Your task to perform on an android device: stop showing notifications on the lock screen Image 0: 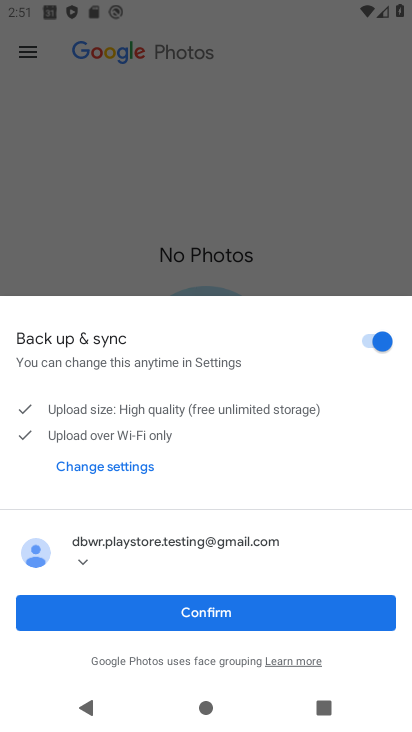
Step 0: press home button
Your task to perform on an android device: stop showing notifications on the lock screen Image 1: 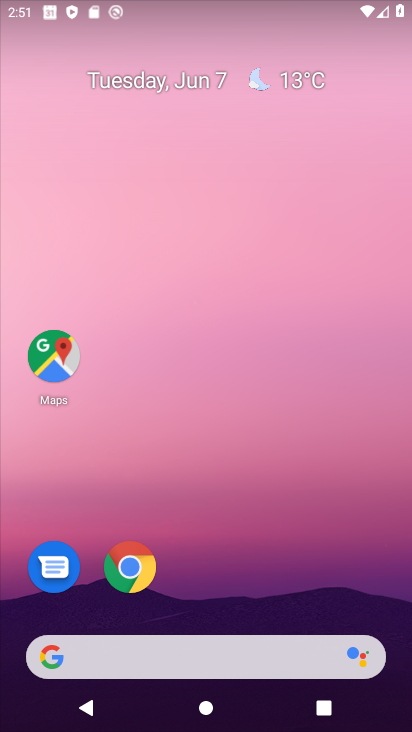
Step 1: drag from (199, 585) to (244, 4)
Your task to perform on an android device: stop showing notifications on the lock screen Image 2: 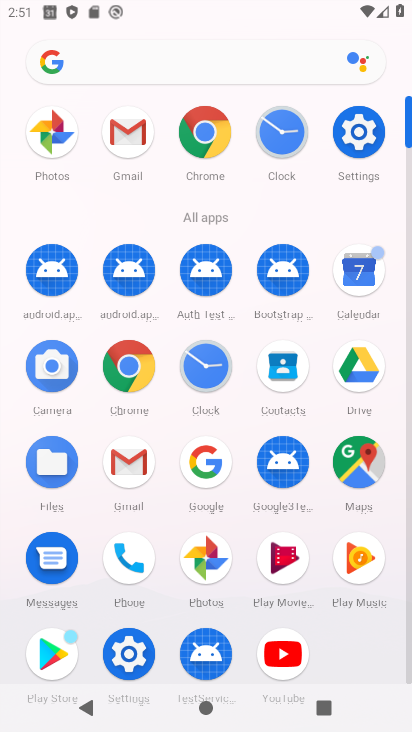
Step 2: click (361, 130)
Your task to perform on an android device: stop showing notifications on the lock screen Image 3: 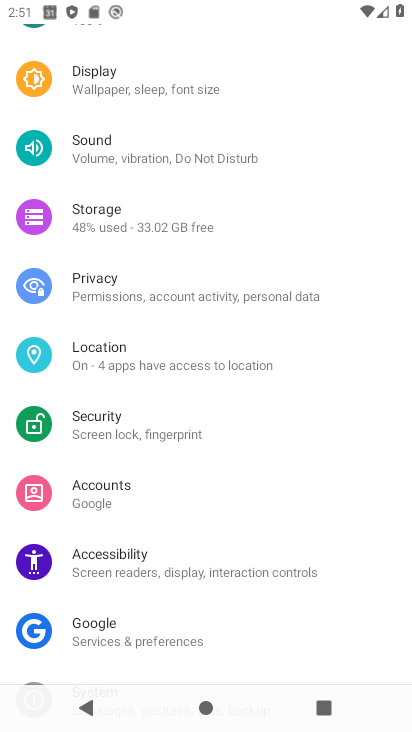
Step 3: drag from (229, 157) to (212, 640)
Your task to perform on an android device: stop showing notifications on the lock screen Image 4: 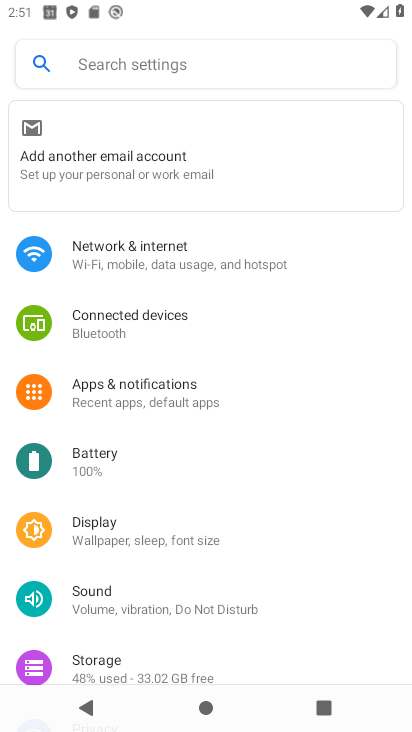
Step 4: click (174, 392)
Your task to perform on an android device: stop showing notifications on the lock screen Image 5: 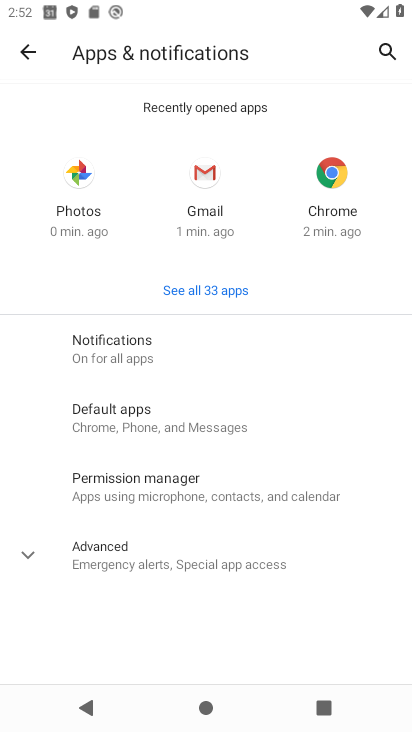
Step 5: click (177, 348)
Your task to perform on an android device: stop showing notifications on the lock screen Image 6: 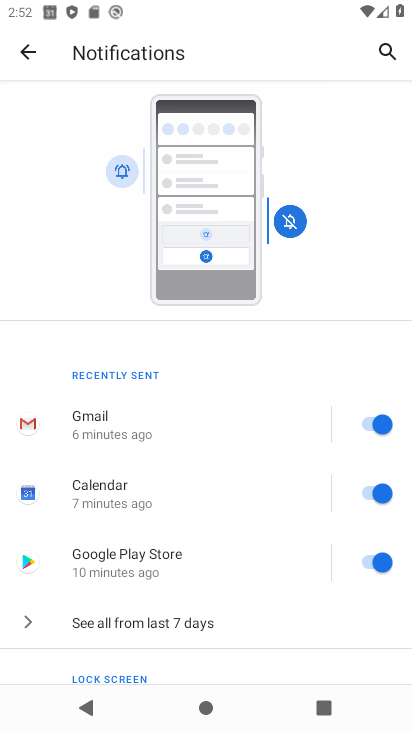
Step 6: click (192, 513)
Your task to perform on an android device: stop showing notifications on the lock screen Image 7: 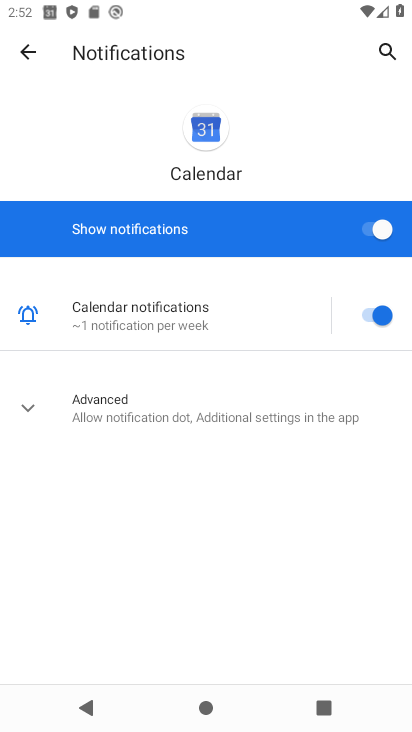
Step 7: click (28, 43)
Your task to perform on an android device: stop showing notifications on the lock screen Image 8: 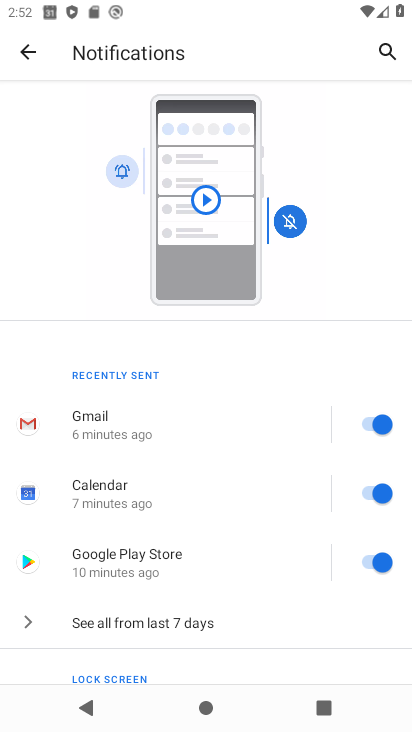
Step 8: drag from (124, 600) to (194, 158)
Your task to perform on an android device: stop showing notifications on the lock screen Image 9: 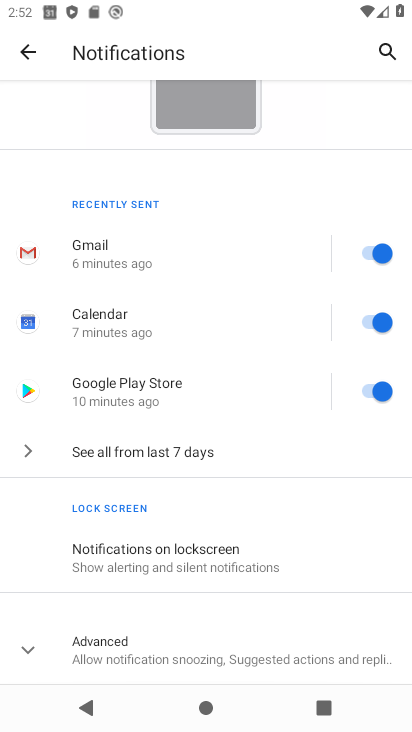
Step 9: click (133, 555)
Your task to perform on an android device: stop showing notifications on the lock screen Image 10: 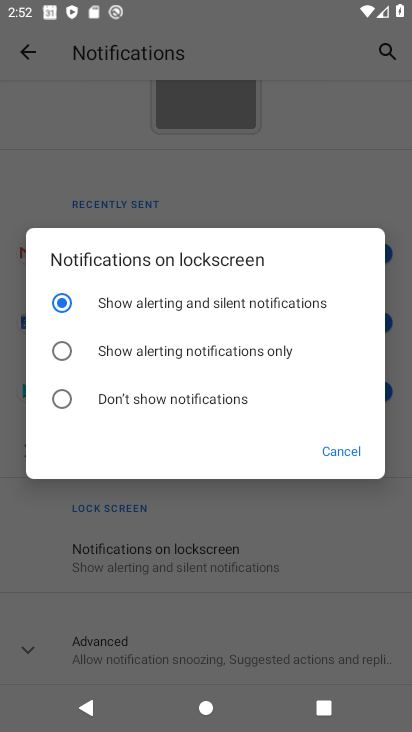
Step 10: click (70, 391)
Your task to perform on an android device: stop showing notifications on the lock screen Image 11: 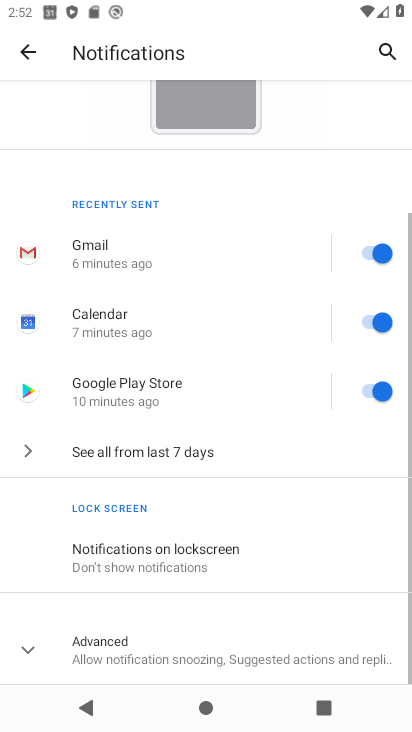
Step 11: task complete